Your task to perform on an android device: turn on bluetooth scan Image 0: 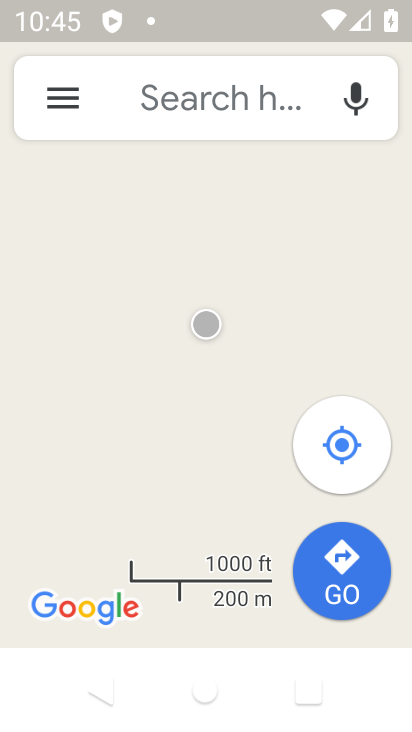
Step 0: press home button
Your task to perform on an android device: turn on bluetooth scan Image 1: 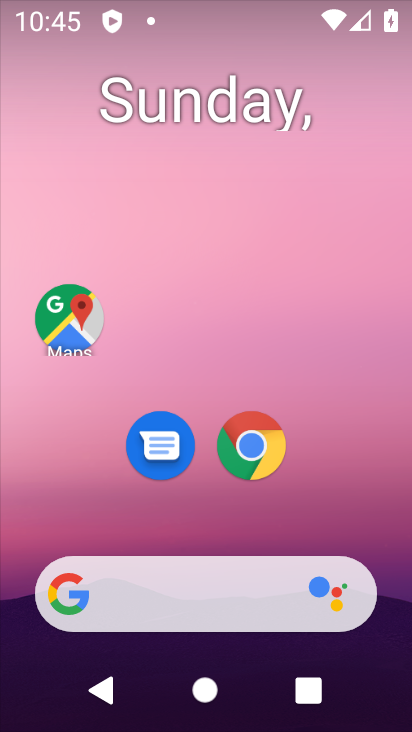
Step 1: drag from (98, 491) to (218, 84)
Your task to perform on an android device: turn on bluetooth scan Image 2: 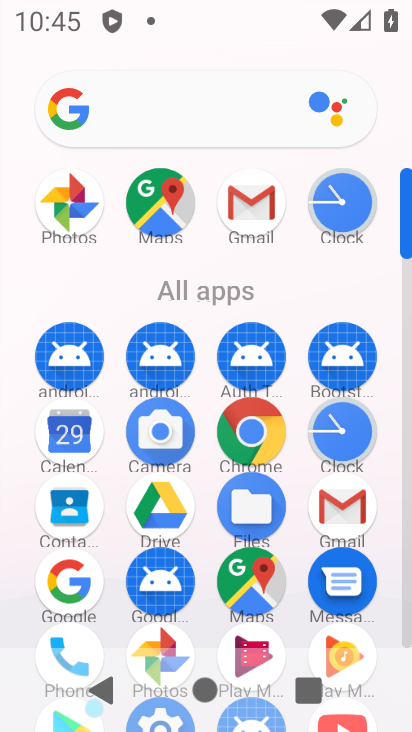
Step 2: drag from (174, 640) to (241, 396)
Your task to perform on an android device: turn on bluetooth scan Image 3: 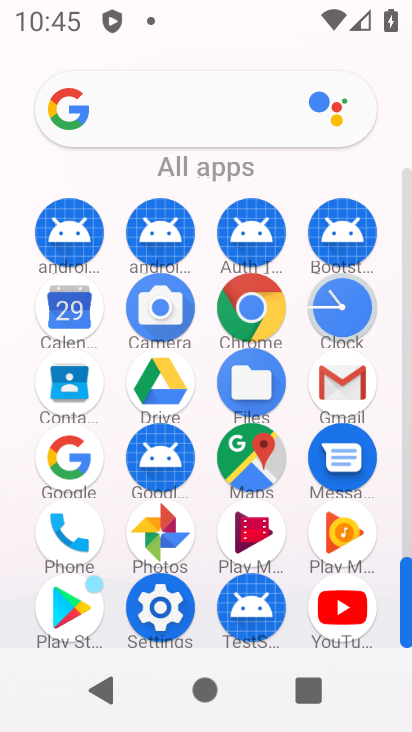
Step 3: click (158, 610)
Your task to perform on an android device: turn on bluetooth scan Image 4: 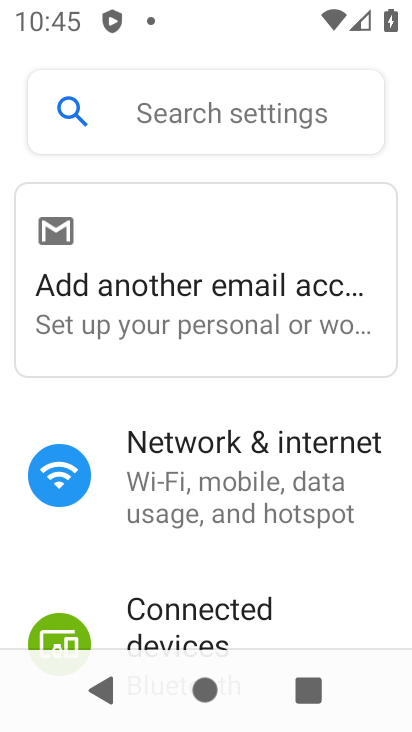
Step 4: drag from (253, 513) to (389, 172)
Your task to perform on an android device: turn on bluetooth scan Image 5: 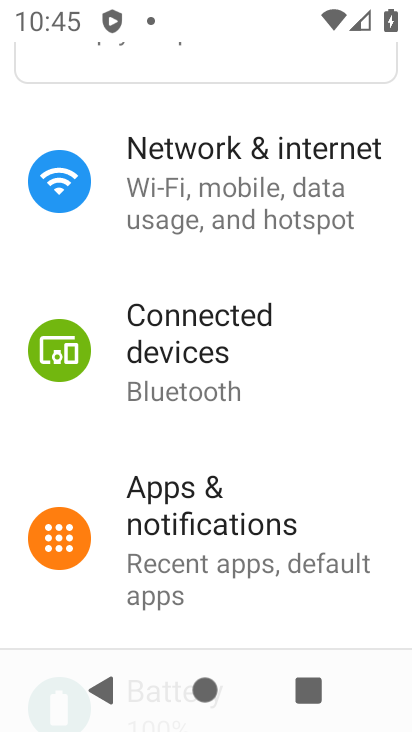
Step 5: click (284, 322)
Your task to perform on an android device: turn on bluetooth scan Image 6: 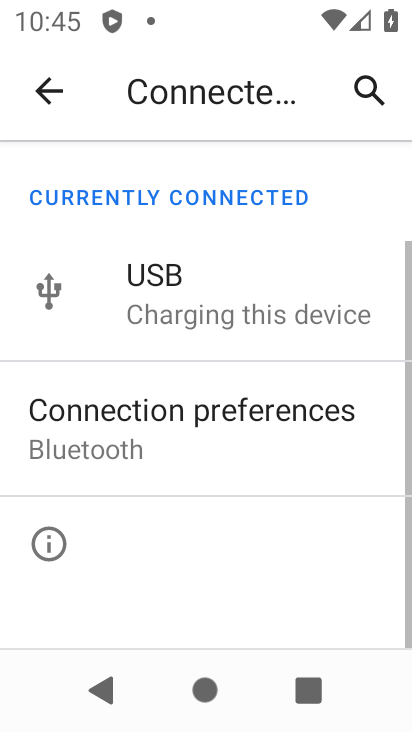
Step 6: click (178, 455)
Your task to perform on an android device: turn on bluetooth scan Image 7: 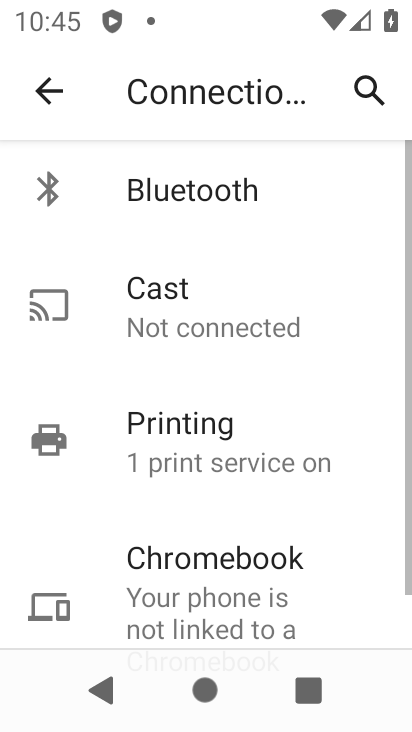
Step 7: click (324, 180)
Your task to perform on an android device: turn on bluetooth scan Image 8: 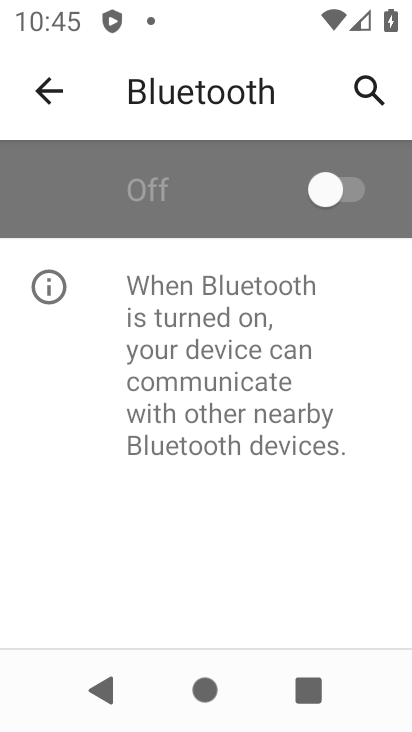
Step 8: click (385, 187)
Your task to perform on an android device: turn on bluetooth scan Image 9: 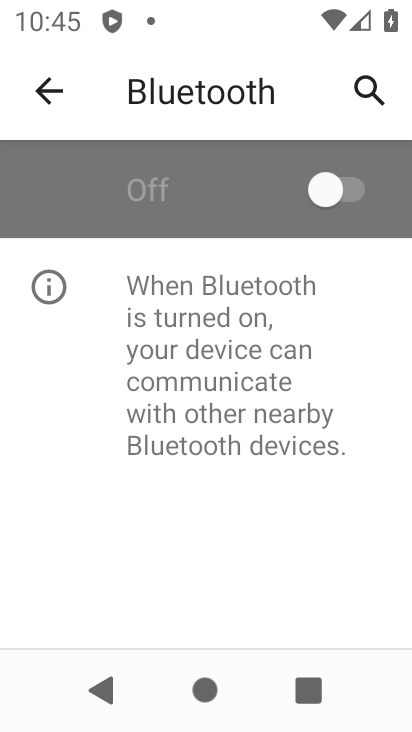
Step 9: click (385, 187)
Your task to perform on an android device: turn on bluetooth scan Image 10: 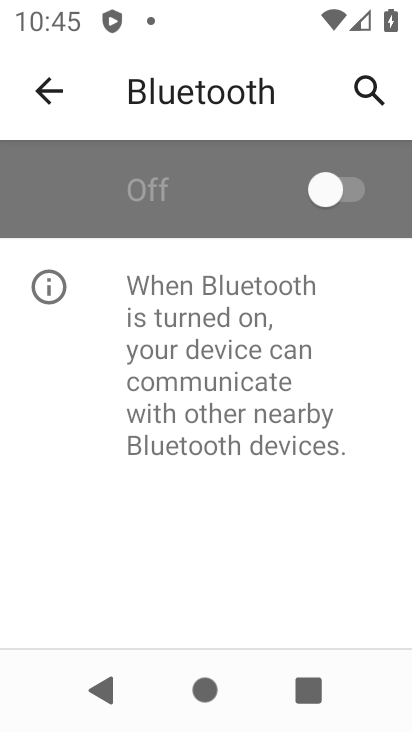
Step 10: click (384, 188)
Your task to perform on an android device: turn on bluetooth scan Image 11: 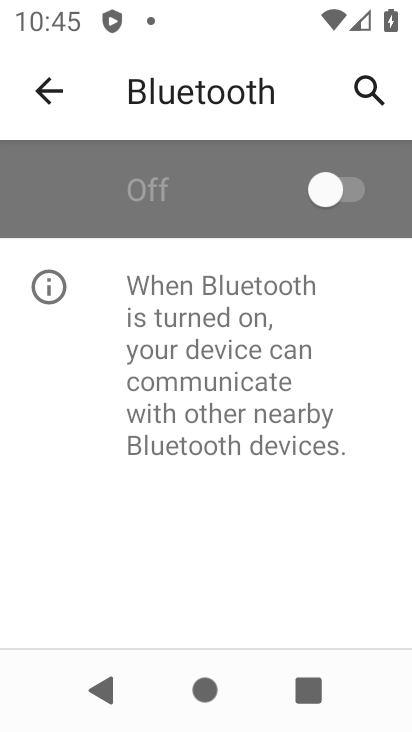
Step 11: click (384, 188)
Your task to perform on an android device: turn on bluetooth scan Image 12: 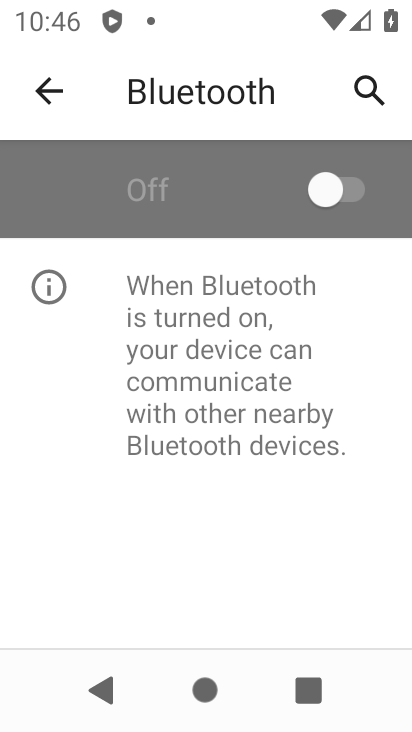
Step 12: click (384, 189)
Your task to perform on an android device: turn on bluetooth scan Image 13: 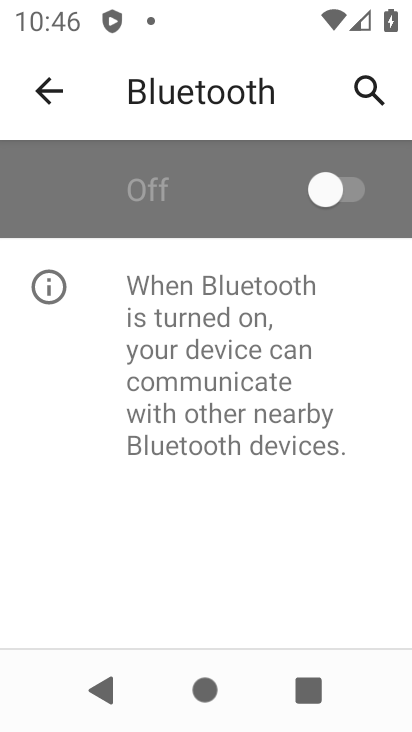
Step 13: click (381, 190)
Your task to perform on an android device: turn on bluetooth scan Image 14: 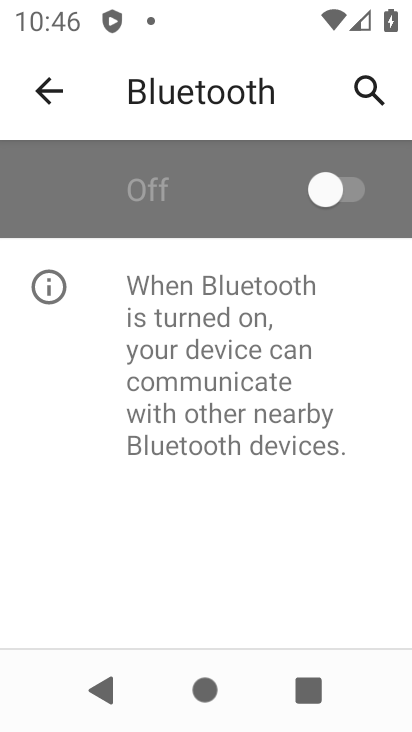
Step 14: task complete